Your task to perform on an android device: change text size in settings app Image 0: 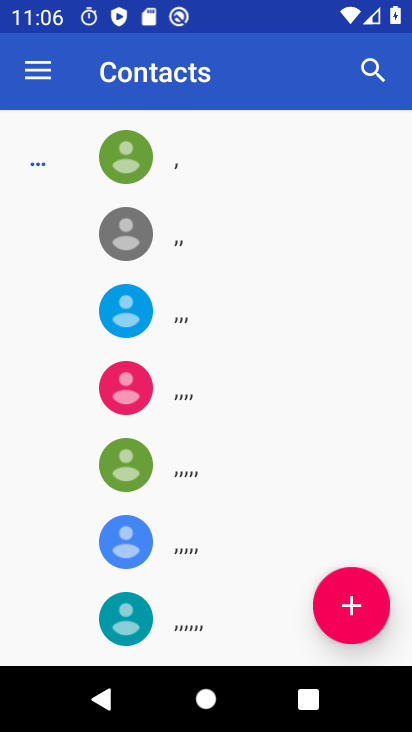
Step 0: press home button
Your task to perform on an android device: change text size in settings app Image 1: 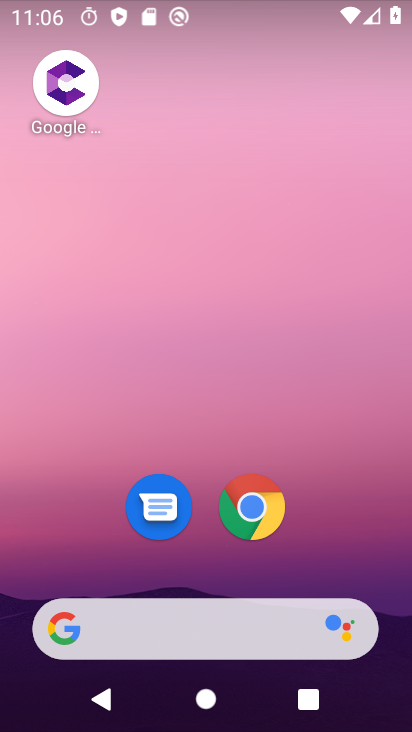
Step 1: drag from (395, 649) to (296, 48)
Your task to perform on an android device: change text size in settings app Image 2: 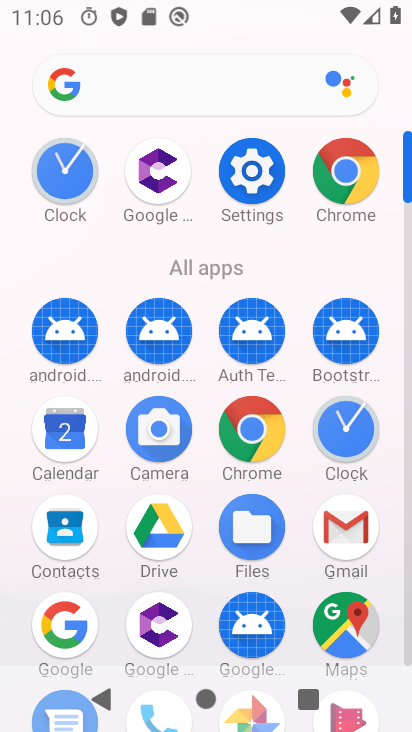
Step 2: click (253, 193)
Your task to perform on an android device: change text size in settings app Image 3: 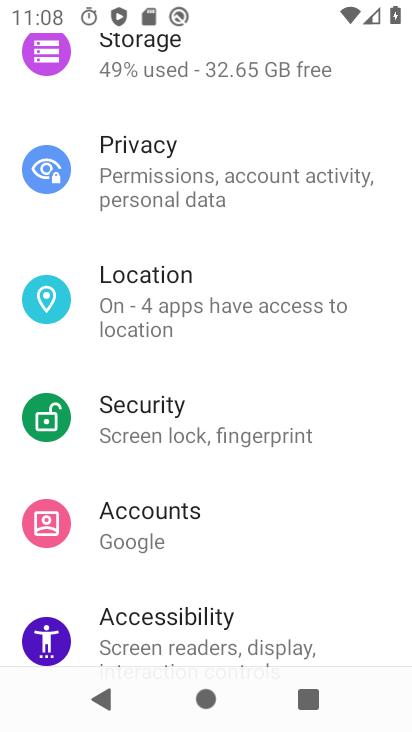
Step 3: drag from (182, 145) to (190, 594)
Your task to perform on an android device: change text size in settings app Image 4: 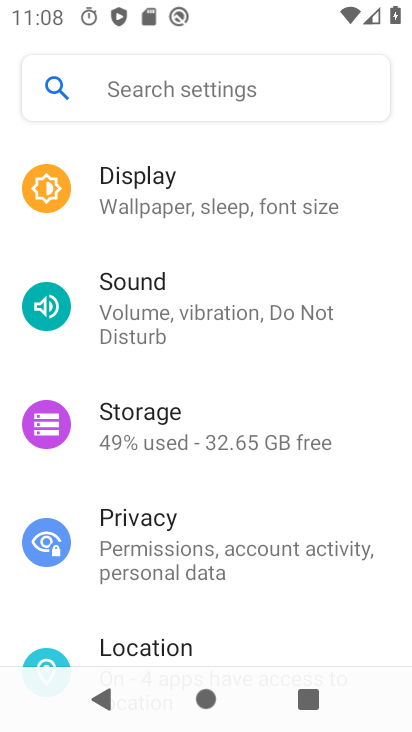
Step 4: click (151, 219)
Your task to perform on an android device: change text size in settings app Image 5: 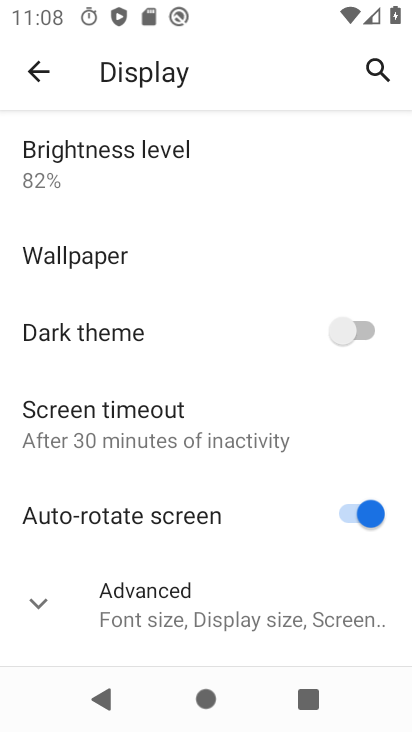
Step 5: click (215, 618)
Your task to perform on an android device: change text size in settings app Image 6: 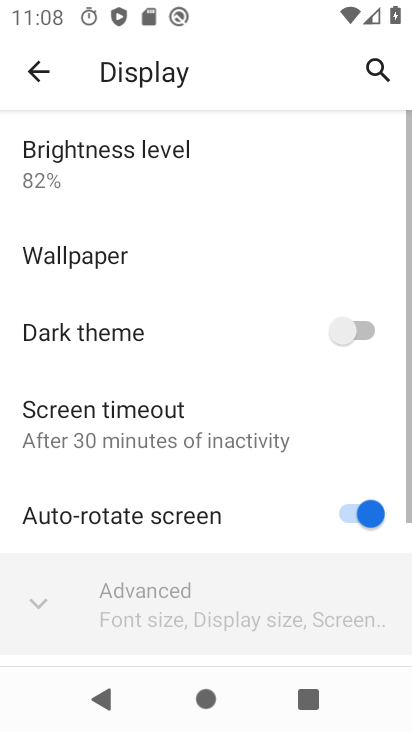
Step 6: drag from (215, 618) to (230, 145)
Your task to perform on an android device: change text size in settings app Image 7: 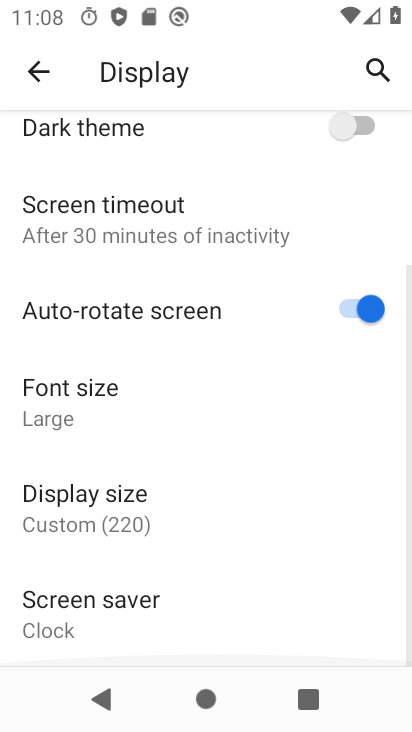
Step 7: click (72, 381)
Your task to perform on an android device: change text size in settings app Image 8: 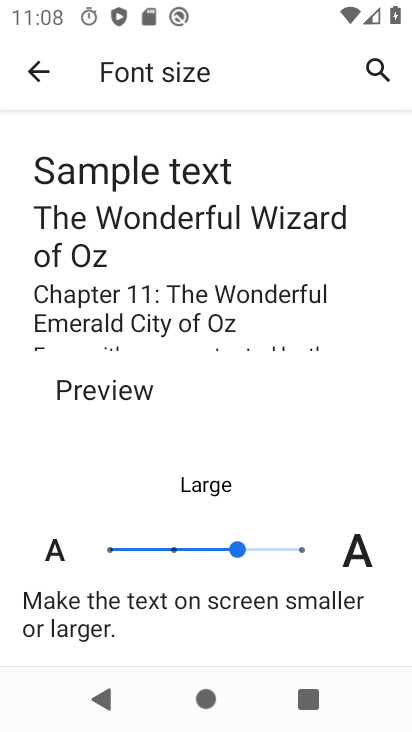
Step 8: click (176, 550)
Your task to perform on an android device: change text size in settings app Image 9: 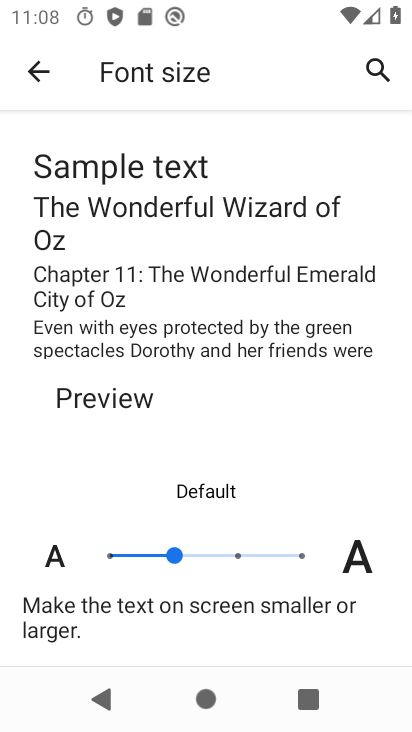
Step 9: task complete